Your task to perform on an android device: open app "Facebook" (install if not already installed) and go to login screen Image 0: 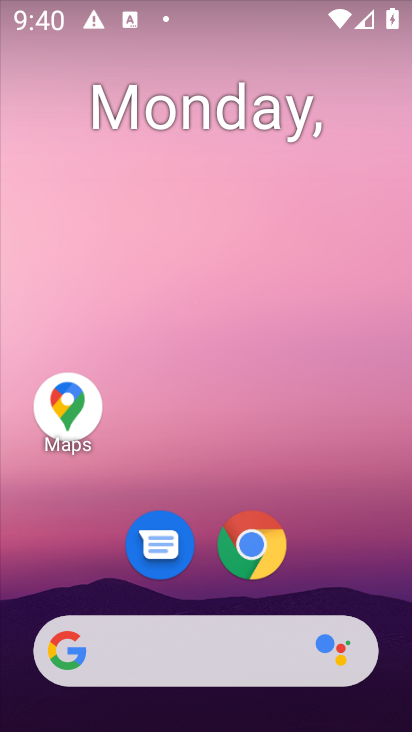
Step 0: press home button
Your task to perform on an android device: open app "Facebook" (install if not already installed) and go to login screen Image 1: 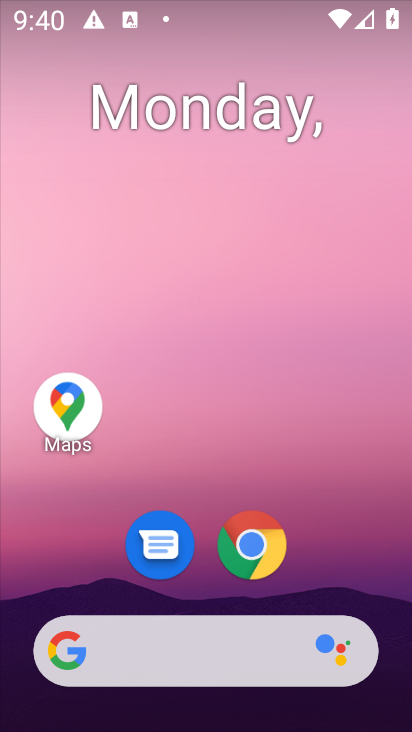
Step 1: drag from (363, 596) to (371, 100)
Your task to perform on an android device: open app "Facebook" (install if not already installed) and go to login screen Image 2: 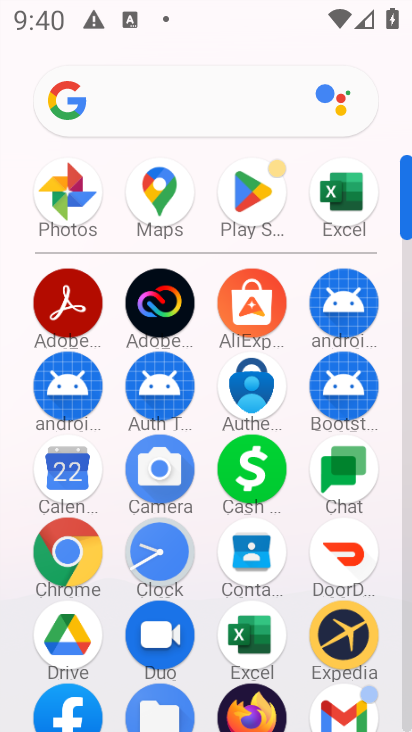
Step 2: click (259, 196)
Your task to perform on an android device: open app "Facebook" (install if not already installed) and go to login screen Image 3: 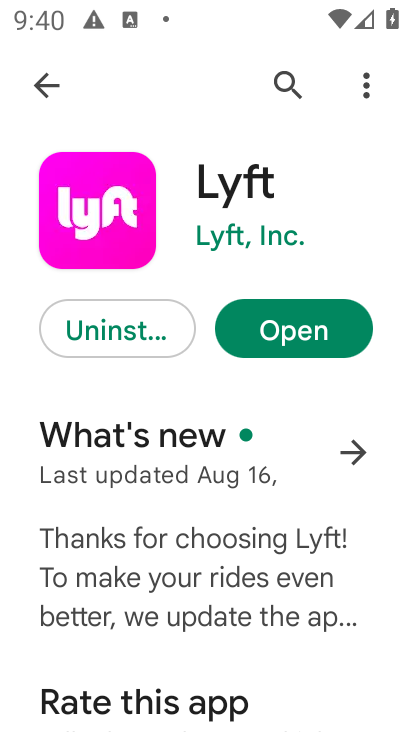
Step 3: press back button
Your task to perform on an android device: open app "Facebook" (install if not already installed) and go to login screen Image 4: 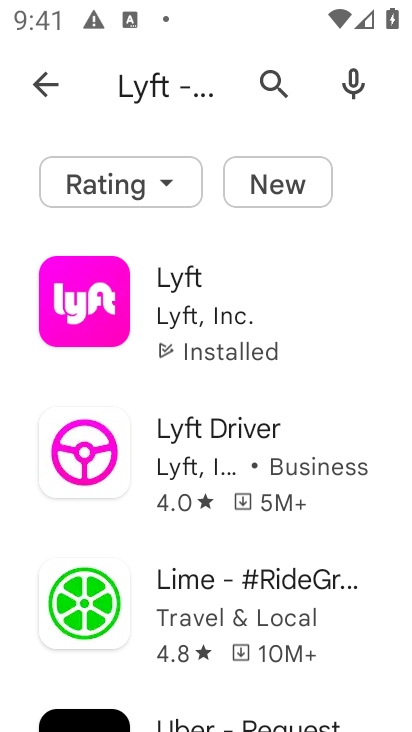
Step 4: press back button
Your task to perform on an android device: open app "Facebook" (install if not already installed) and go to login screen Image 5: 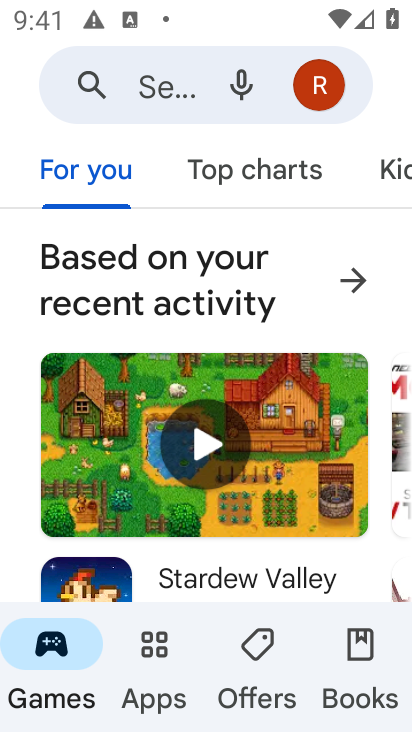
Step 5: click (171, 83)
Your task to perform on an android device: open app "Facebook" (install if not already installed) and go to login screen Image 6: 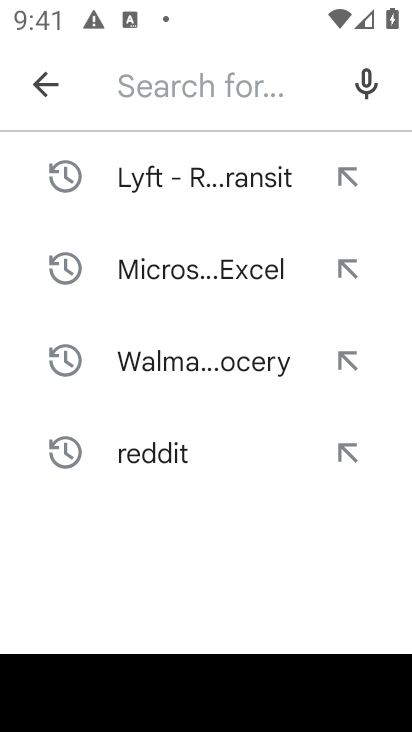
Step 6: press enter
Your task to perform on an android device: open app "Facebook" (install if not already installed) and go to login screen Image 7: 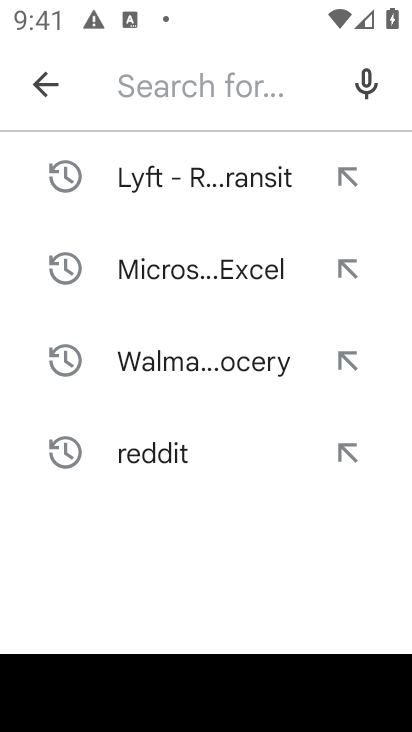
Step 7: type "facebook"
Your task to perform on an android device: open app "Facebook" (install if not already installed) and go to login screen Image 8: 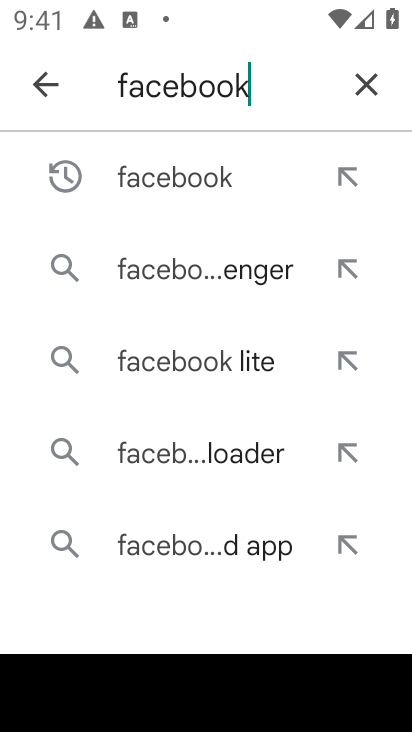
Step 8: click (215, 185)
Your task to perform on an android device: open app "Facebook" (install if not already installed) and go to login screen Image 9: 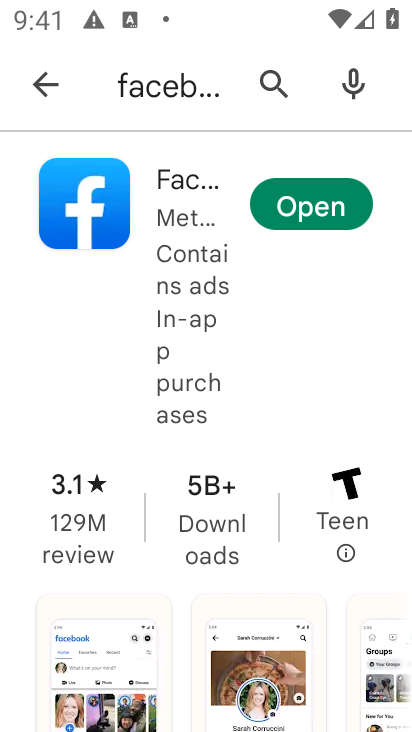
Step 9: click (304, 213)
Your task to perform on an android device: open app "Facebook" (install if not already installed) and go to login screen Image 10: 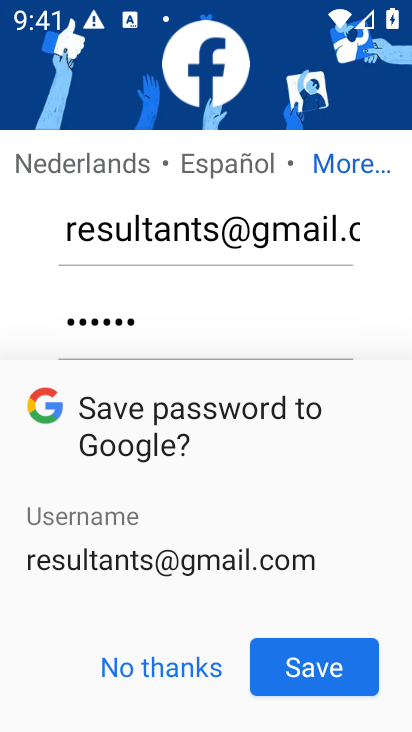
Step 10: task complete